Your task to perform on an android device: Open the phone app and click the voicemail tab. Image 0: 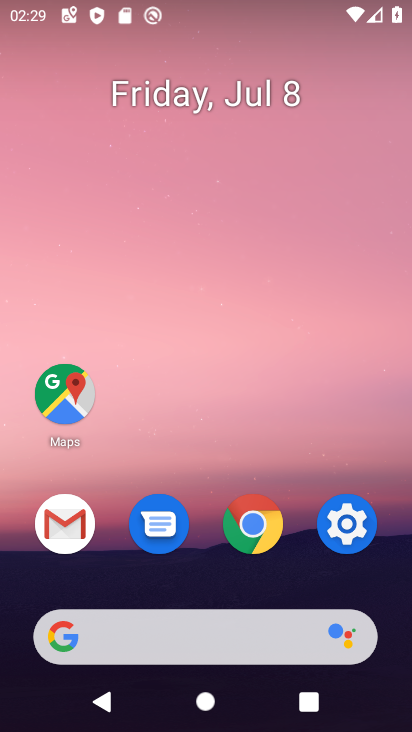
Step 0: drag from (214, 647) to (252, 231)
Your task to perform on an android device: Open the phone app and click the voicemail tab. Image 1: 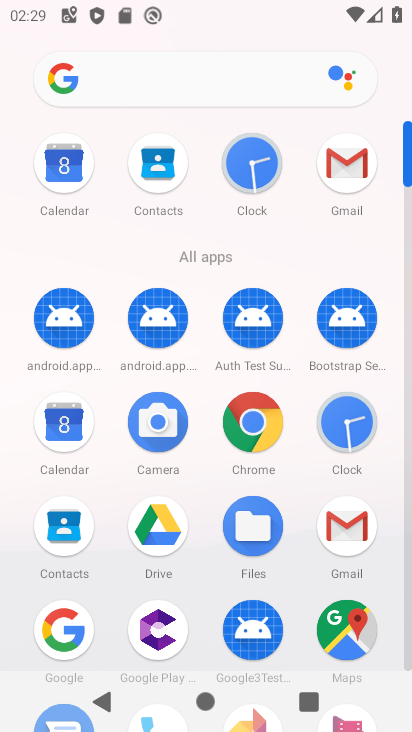
Step 1: drag from (191, 579) to (237, 424)
Your task to perform on an android device: Open the phone app and click the voicemail tab. Image 2: 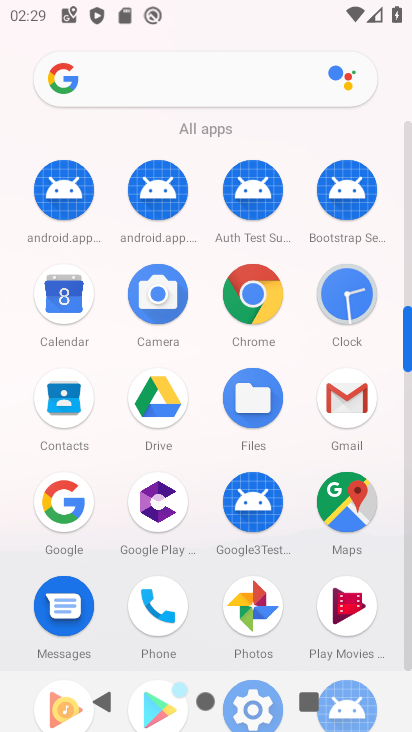
Step 2: click (164, 612)
Your task to perform on an android device: Open the phone app and click the voicemail tab. Image 3: 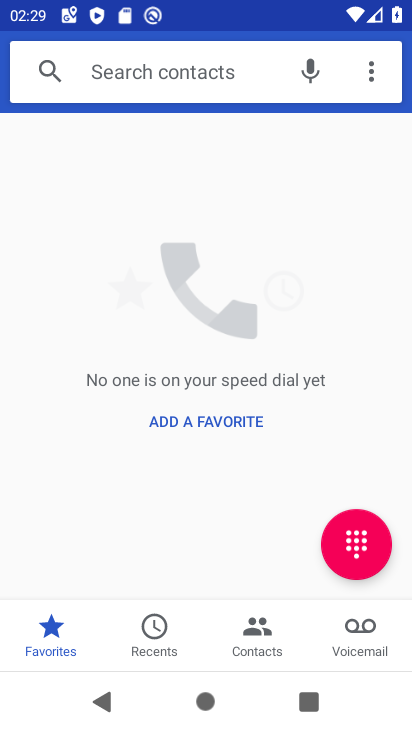
Step 3: click (342, 635)
Your task to perform on an android device: Open the phone app and click the voicemail tab. Image 4: 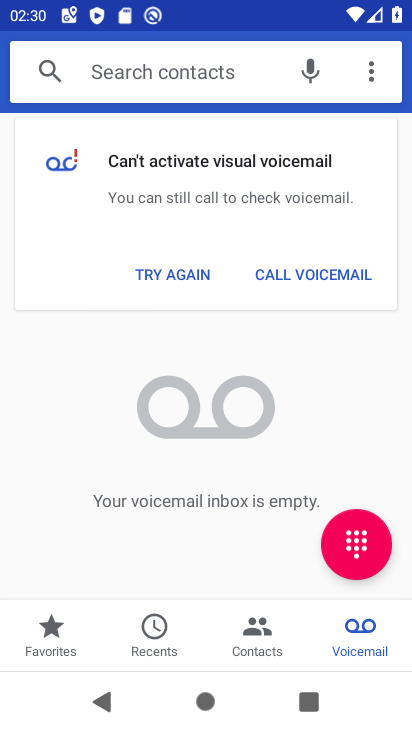
Step 4: task complete